Your task to perform on an android device: Search for seafood restaurants on Google Maps Image 0: 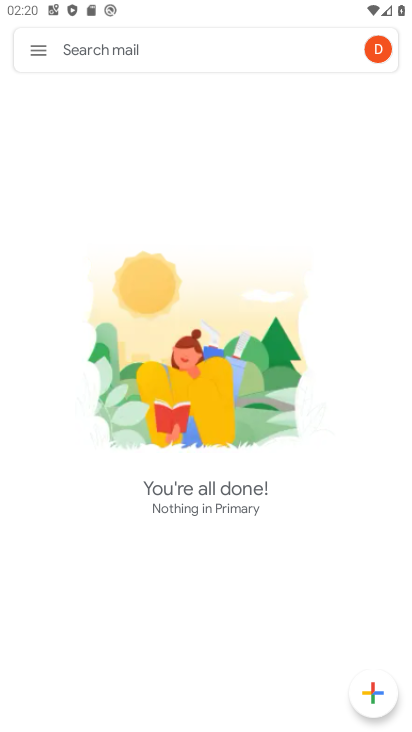
Step 0: press home button
Your task to perform on an android device: Search for seafood restaurants on Google Maps Image 1: 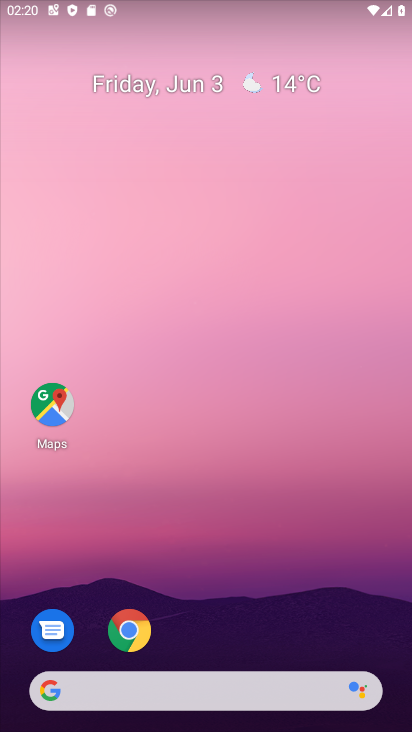
Step 1: click (57, 405)
Your task to perform on an android device: Search for seafood restaurants on Google Maps Image 2: 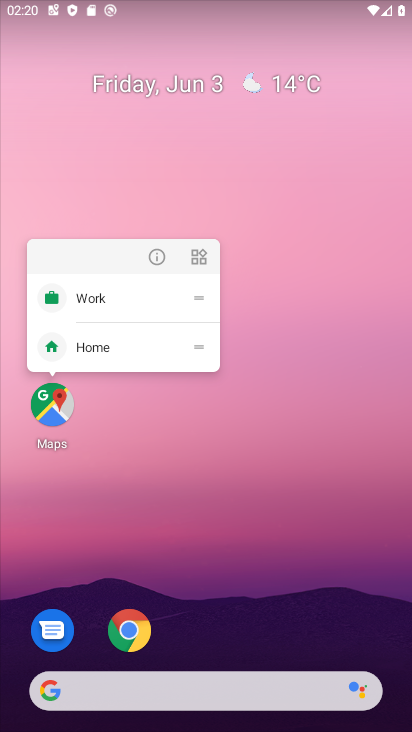
Step 2: click (49, 416)
Your task to perform on an android device: Search for seafood restaurants on Google Maps Image 3: 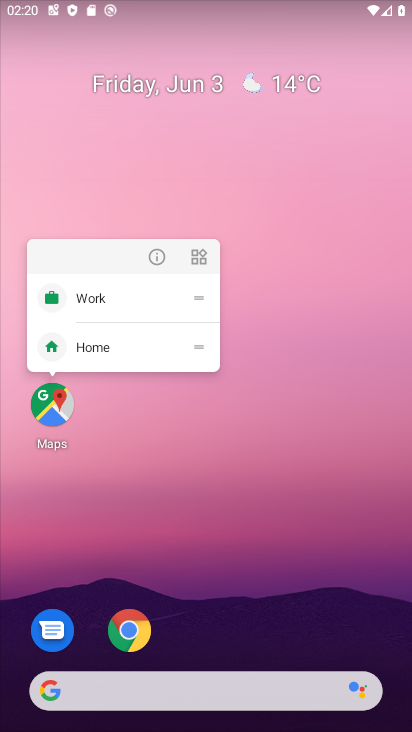
Step 3: click (53, 416)
Your task to perform on an android device: Search for seafood restaurants on Google Maps Image 4: 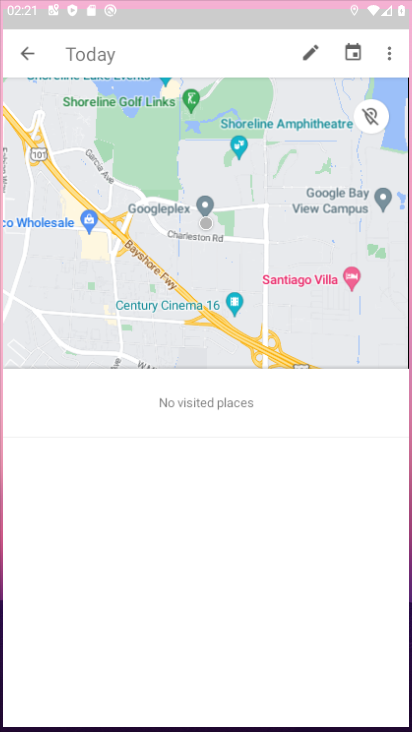
Step 4: click (51, 404)
Your task to perform on an android device: Search for seafood restaurants on Google Maps Image 5: 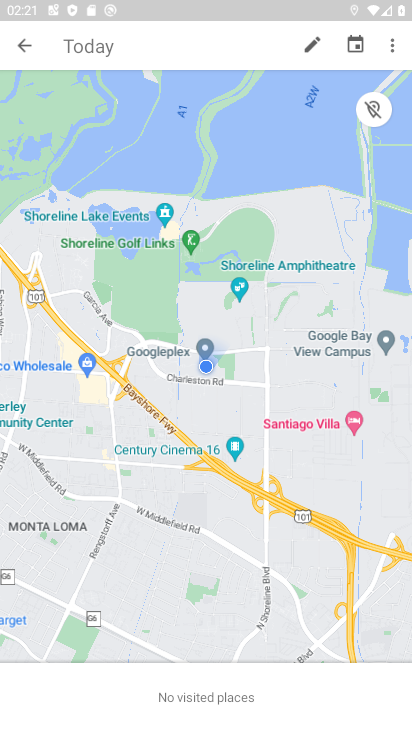
Step 5: click (25, 37)
Your task to perform on an android device: Search for seafood restaurants on Google Maps Image 6: 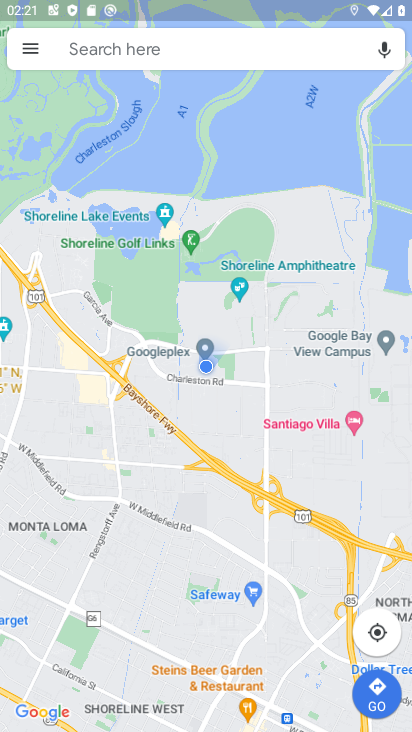
Step 6: click (76, 54)
Your task to perform on an android device: Search for seafood restaurants on Google Maps Image 7: 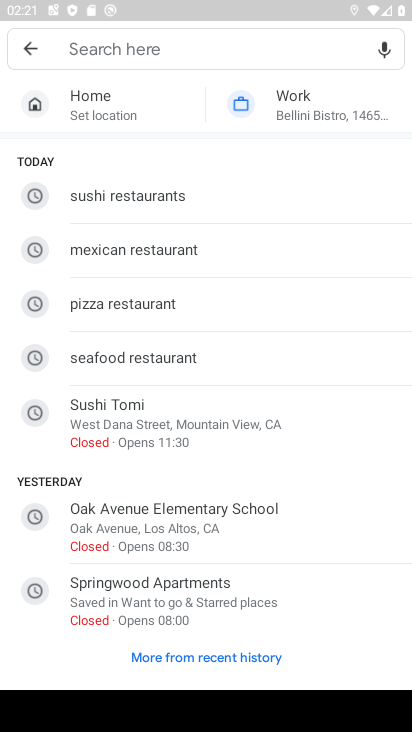
Step 7: type "seafood restaurants"
Your task to perform on an android device: Search for seafood restaurants on Google Maps Image 8: 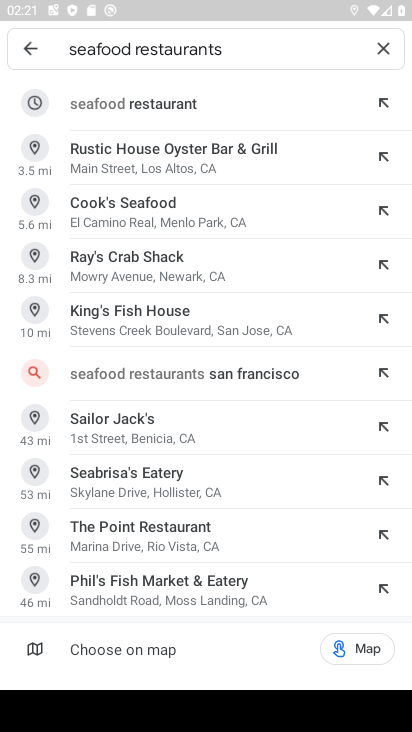
Step 8: click (126, 95)
Your task to perform on an android device: Search for seafood restaurants on Google Maps Image 9: 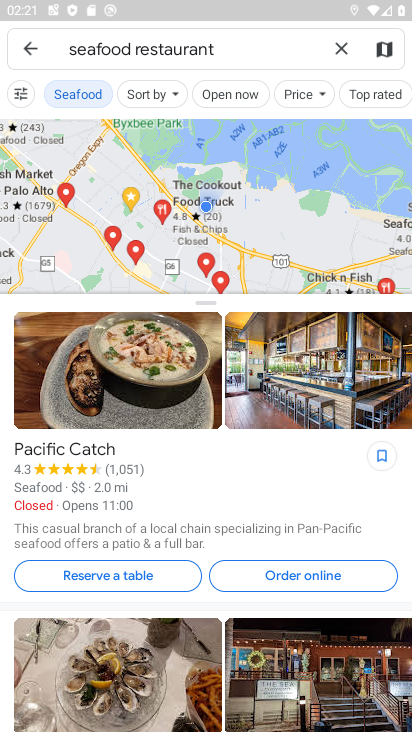
Step 9: task complete